Your task to perform on an android device: check battery use Image 0: 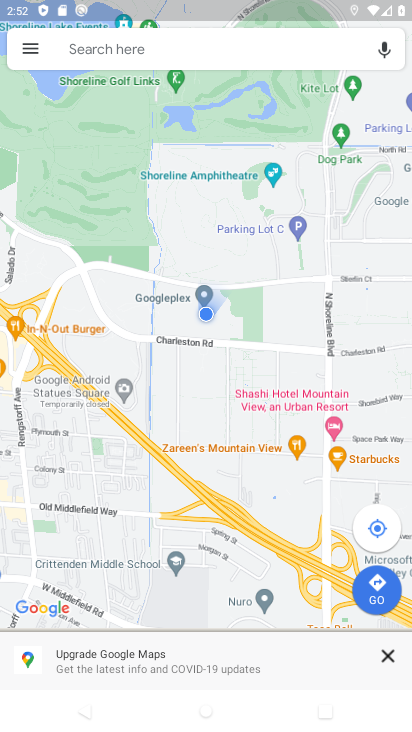
Step 0: press home button
Your task to perform on an android device: check battery use Image 1: 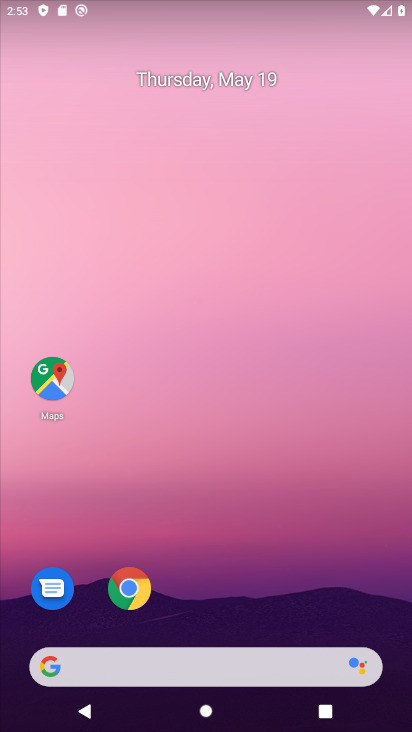
Step 1: drag from (331, 547) to (344, 118)
Your task to perform on an android device: check battery use Image 2: 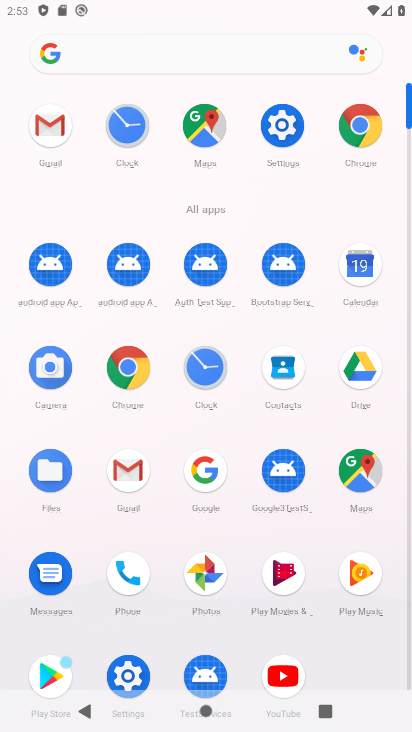
Step 2: click (275, 136)
Your task to perform on an android device: check battery use Image 3: 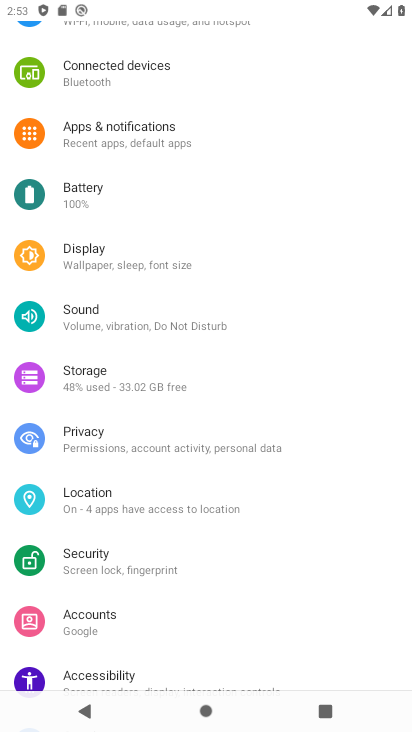
Step 3: click (136, 194)
Your task to perform on an android device: check battery use Image 4: 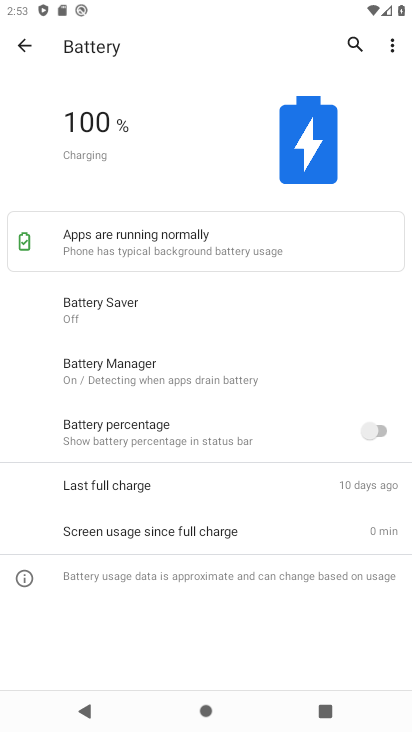
Step 4: click (394, 51)
Your task to perform on an android device: check battery use Image 5: 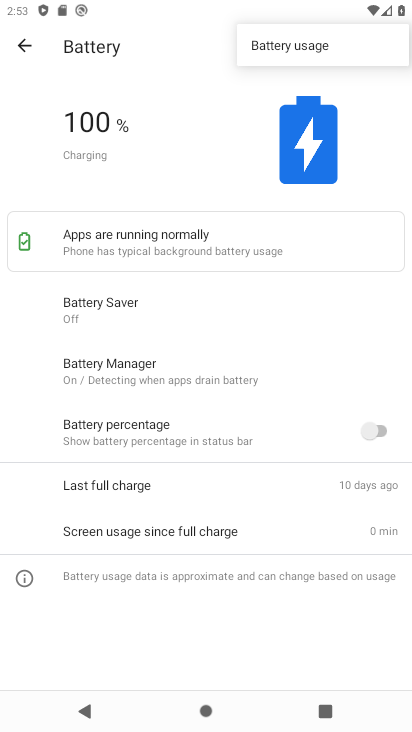
Step 5: click (265, 38)
Your task to perform on an android device: check battery use Image 6: 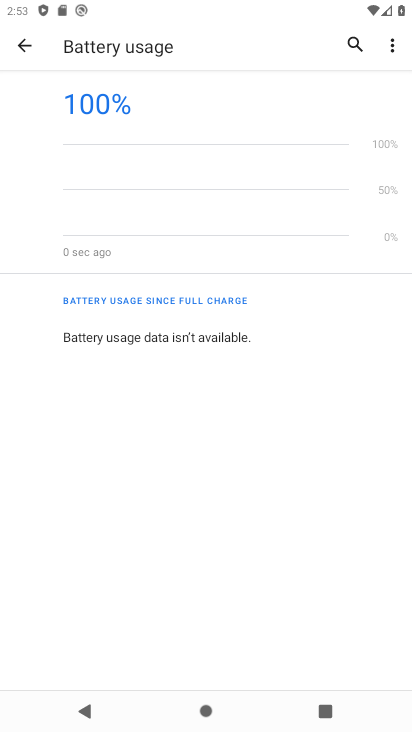
Step 6: task complete